Your task to perform on an android device: Go to Reddit.com Image 0: 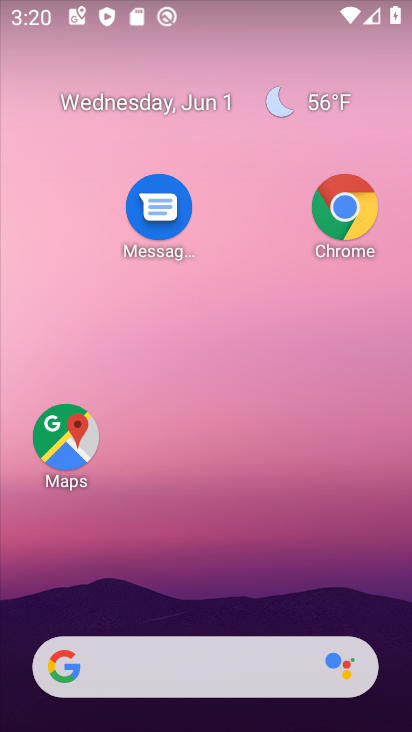
Step 0: drag from (228, 483) to (240, 57)
Your task to perform on an android device: Go to Reddit.com Image 1: 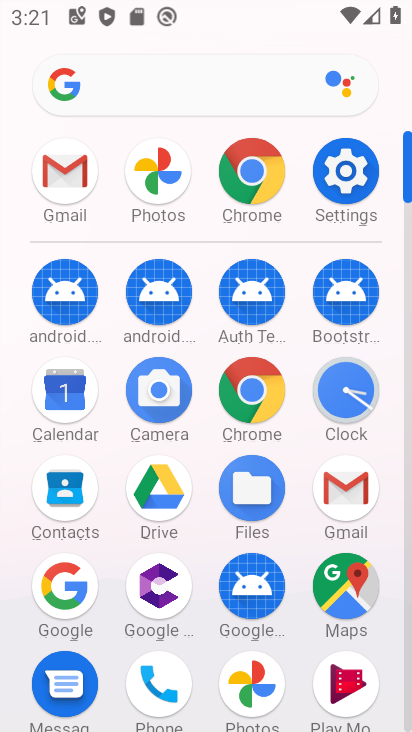
Step 1: click (147, 84)
Your task to perform on an android device: Go to Reddit.com Image 2: 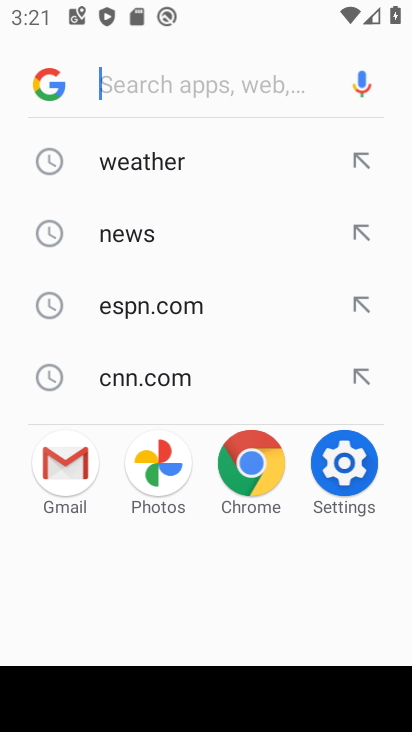
Step 2: type "Reddit.com"
Your task to perform on an android device: Go to Reddit.com Image 3: 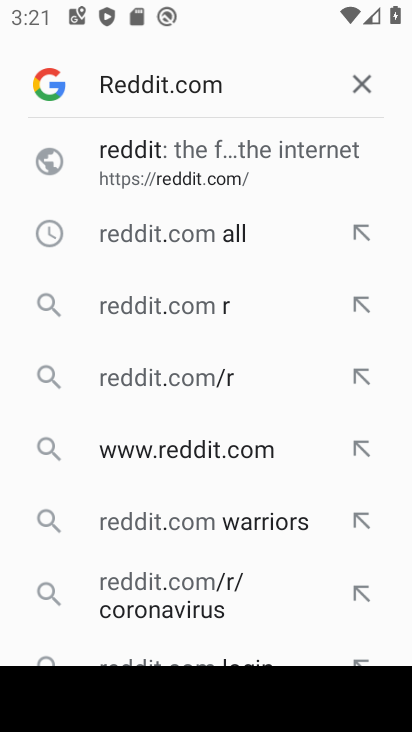
Step 3: click (160, 156)
Your task to perform on an android device: Go to Reddit.com Image 4: 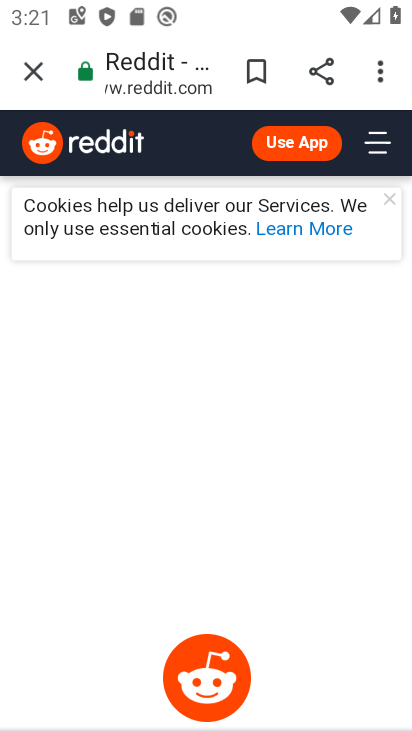
Step 4: task complete